Your task to perform on an android device: Open internet settings Image 0: 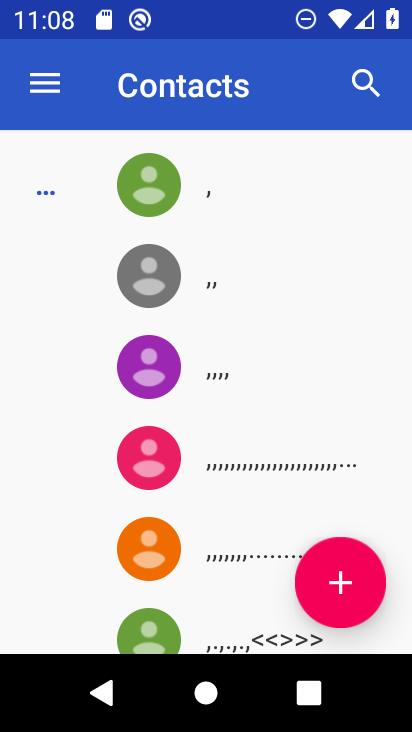
Step 0: press home button
Your task to perform on an android device: Open internet settings Image 1: 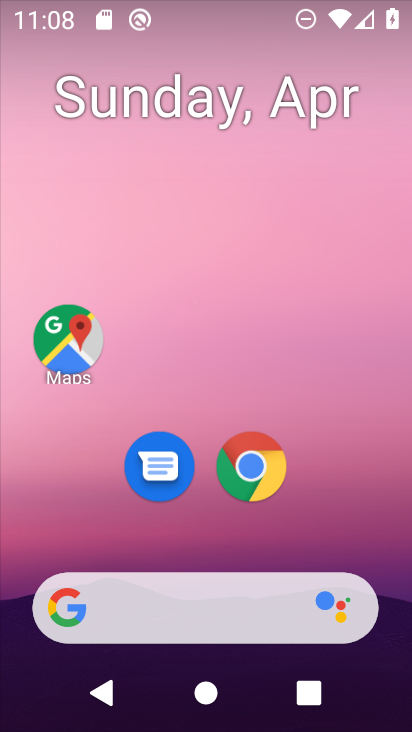
Step 1: drag from (313, 523) to (340, 97)
Your task to perform on an android device: Open internet settings Image 2: 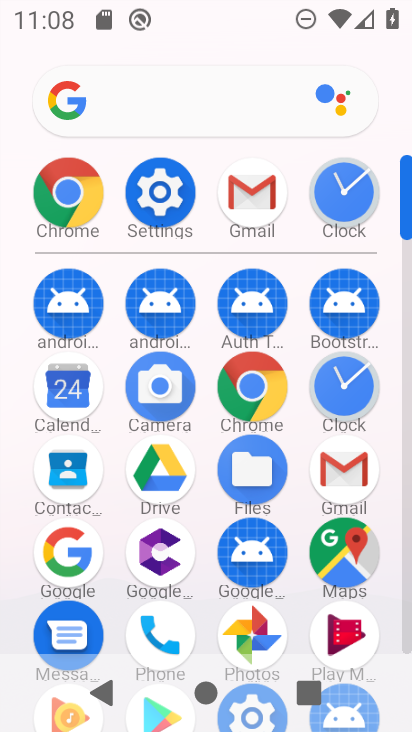
Step 2: click (163, 194)
Your task to perform on an android device: Open internet settings Image 3: 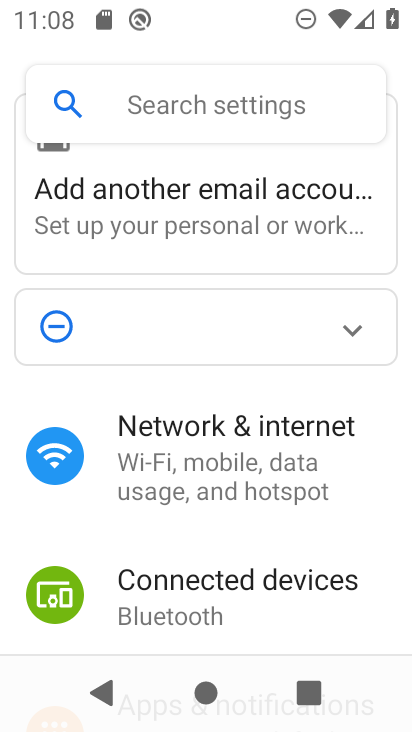
Step 3: drag from (364, 622) to (369, 438)
Your task to perform on an android device: Open internet settings Image 4: 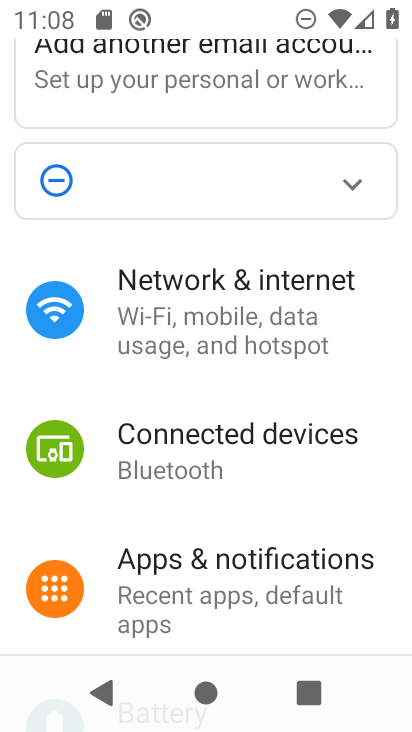
Step 4: drag from (383, 508) to (380, 358)
Your task to perform on an android device: Open internet settings Image 5: 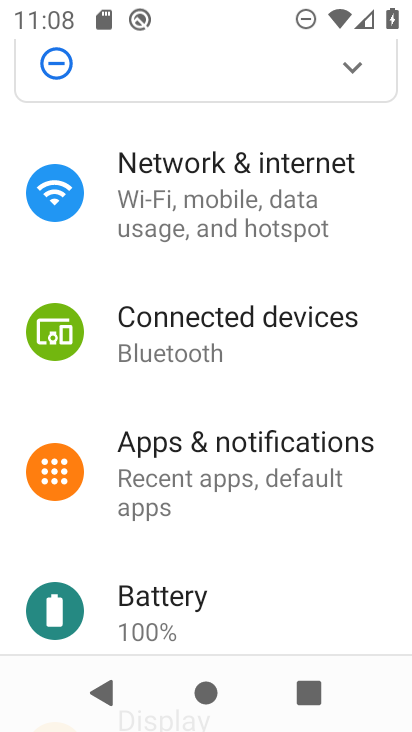
Step 5: drag from (349, 564) to (369, 419)
Your task to perform on an android device: Open internet settings Image 6: 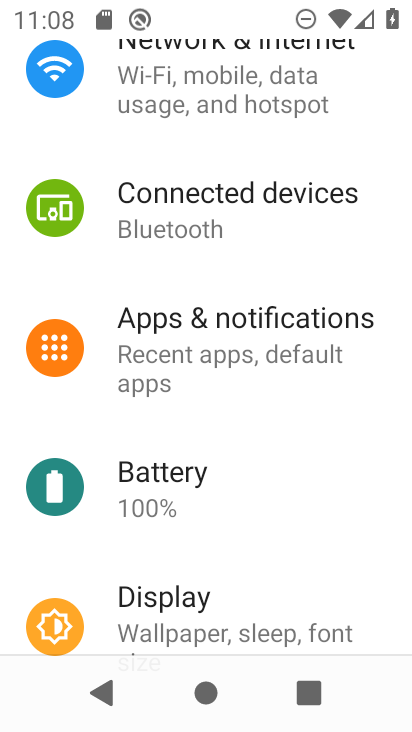
Step 6: drag from (387, 160) to (370, 462)
Your task to perform on an android device: Open internet settings Image 7: 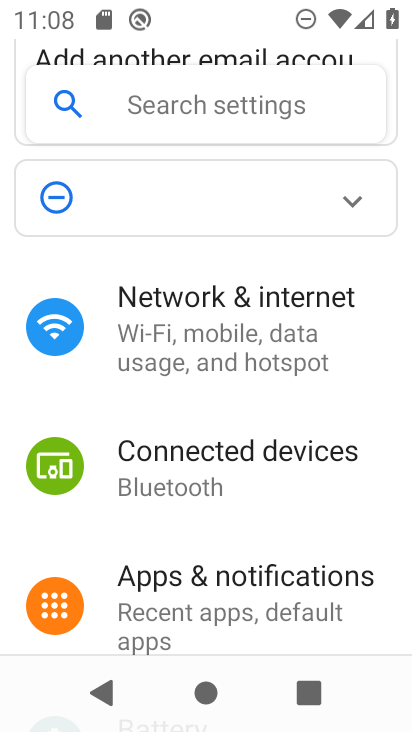
Step 7: click (268, 331)
Your task to perform on an android device: Open internet settings Image 8: 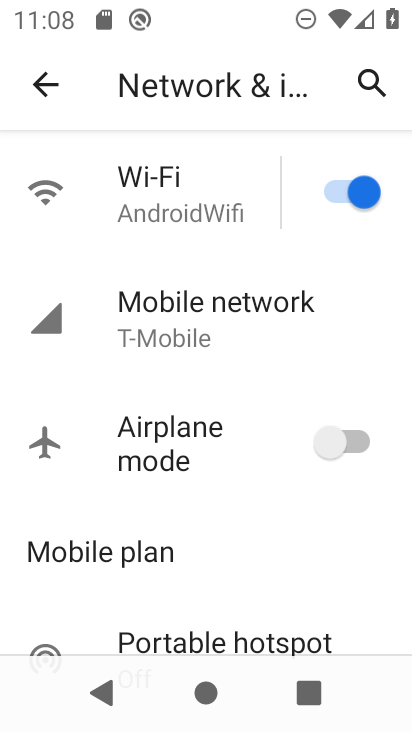
Step 8: task complete